Your task to perform on an android device: turn off priority inbox in the gmail app Image 0: 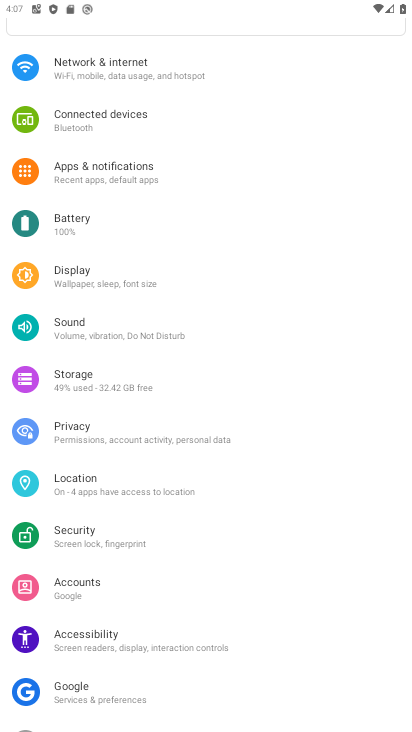
Step 0: press home button
Your task to perform on an android device: turn off priority inbox in the gmail app Image 1: 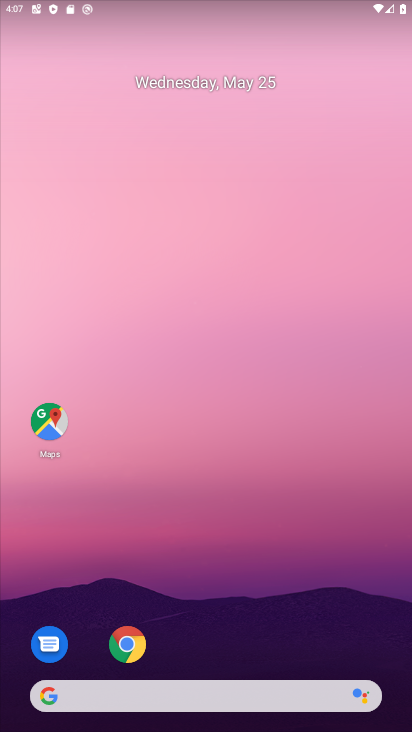
Step 1: drag from (252, 651) to (249, 7)
Your task to perform on an android device: turn off priority inbox in the gmail app Image 2: 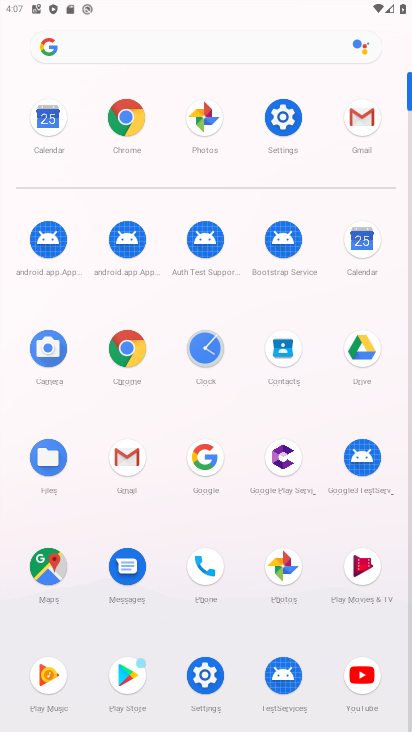
Step 2: click (365, 122)
Your task to perform on an android device: turn off priority inbox in the gmail app Image 3: 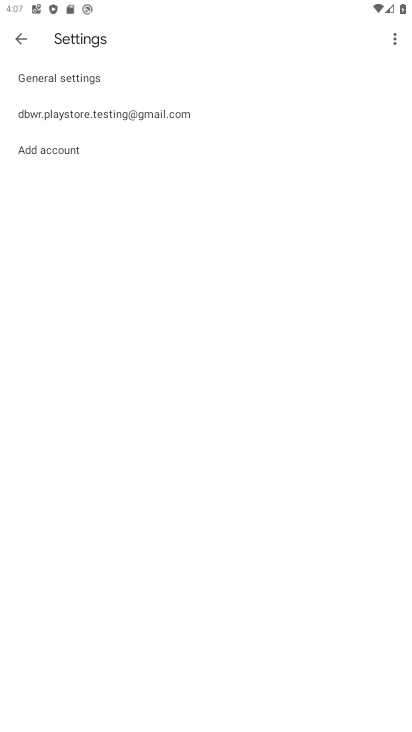
Step 3: click (64, 113)
Your task to perform on an android device: turn off priority inbox in the gmail app Image 4: 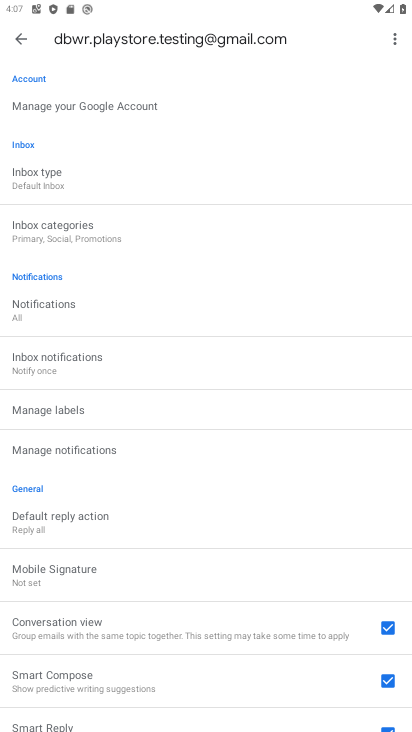
Step 4: click (29, 182)
Your task to perform on an android device: turn off priority inbox in the gmail app Image 5: 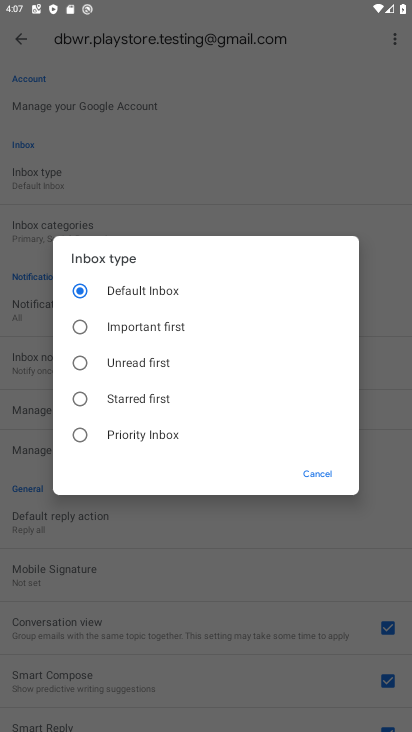
Step 5: task complete